Your task to perform on an android device: turn on the 24-hour format for clock Image 0: 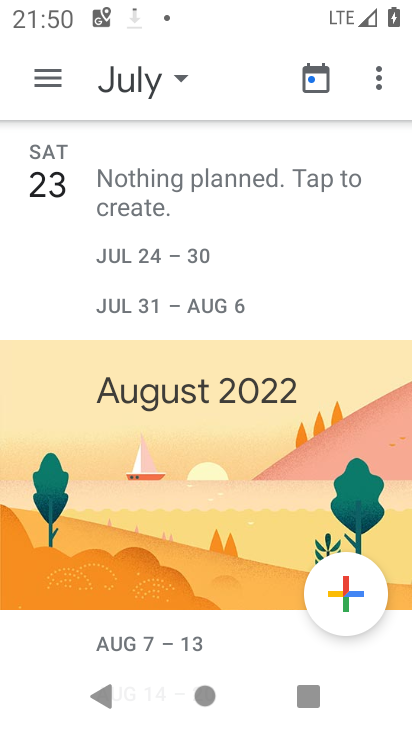
Step 0: press back button
Your task to perform on an android device: turn on the 24-hour format for clock Image 1: 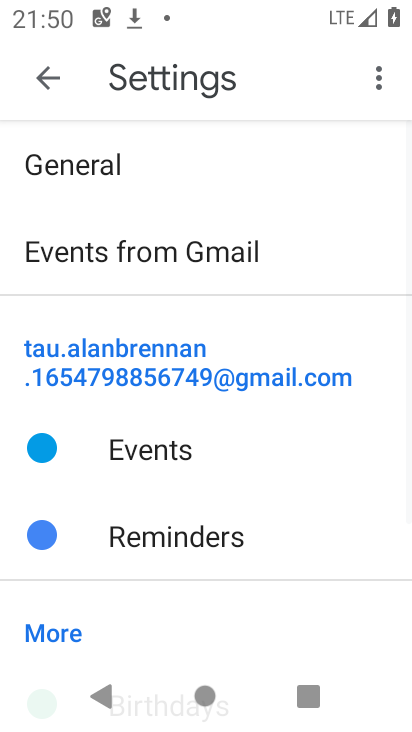
Step 1: press back button
Your task to perform on an android device: turn on the 24-hour format for clock Image 2: 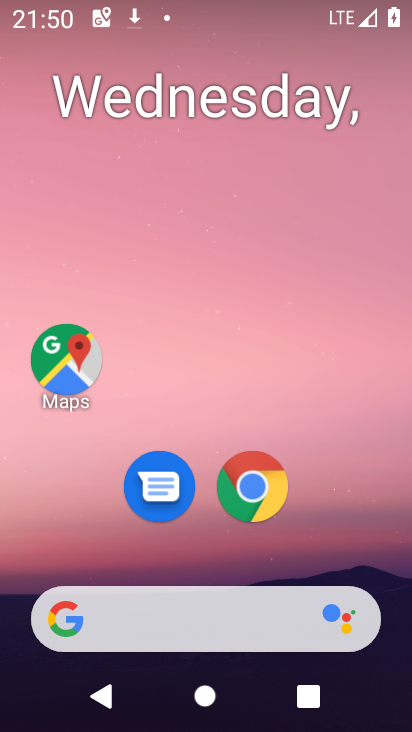
Step 2: drag from (192, 581) to (318, 84)
Your task to perform on an android device: turn on the 24-hour format for clock Image 3: 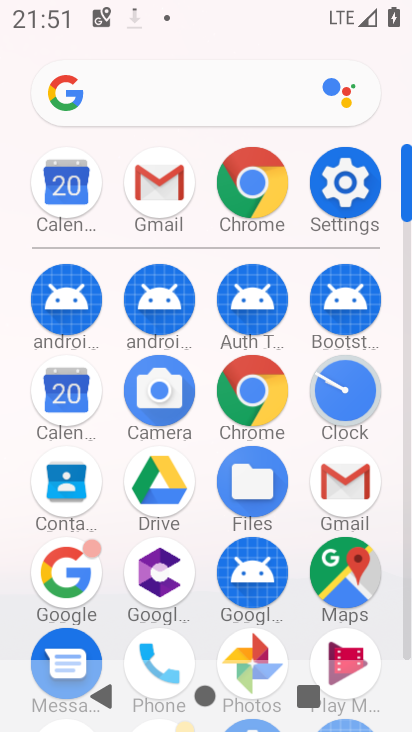
Step 3: click (344, 387)
Your task to perform on an android device: turn on the 24-hour format for clock Image 4: 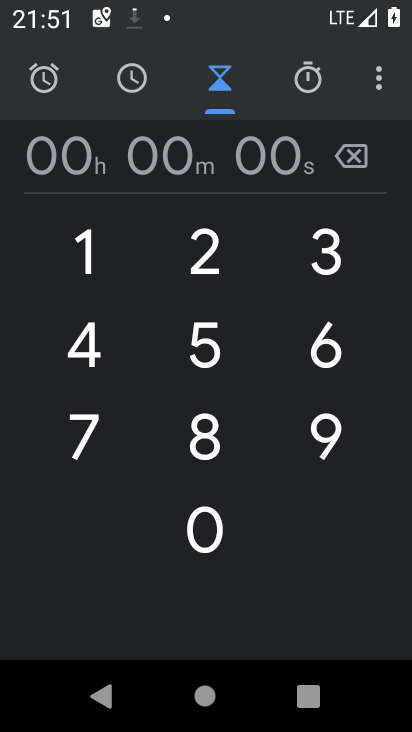
Step 4: click (379, 81)
Your task to perform on an android device: turn on the 24-hour format for clock Image 5: 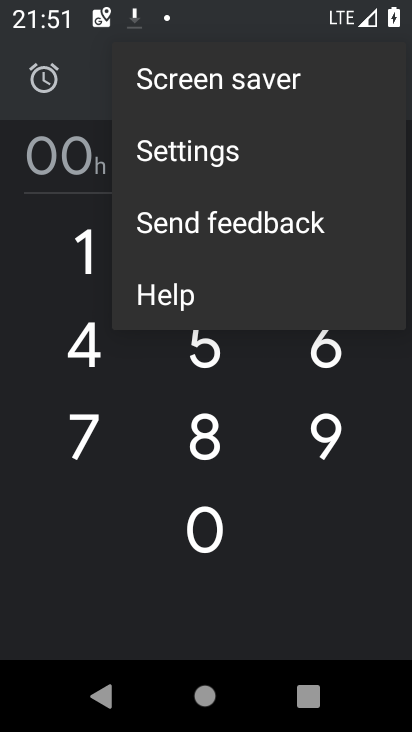
Step 5: click (197, 156)
Your task to perform on an android device: turn on the 24-hour format for clock Image 6: 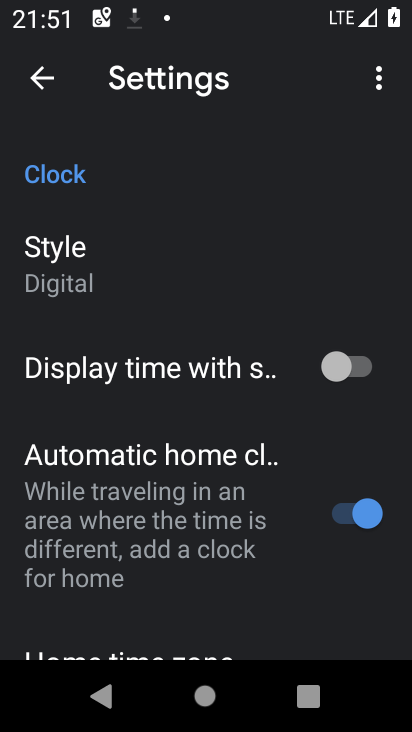
Step 6: drag from (150, 557) to (232, 144)
Your task to perform on an android device: turn on the 24-hour format for clock Image 7: 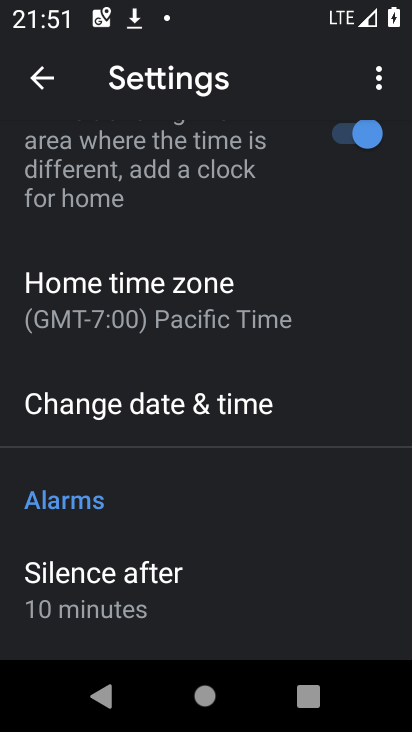
Step 7: click (144, 411)
Your task to perform on an android device: turn on the 24-hour format for clock Image 8: 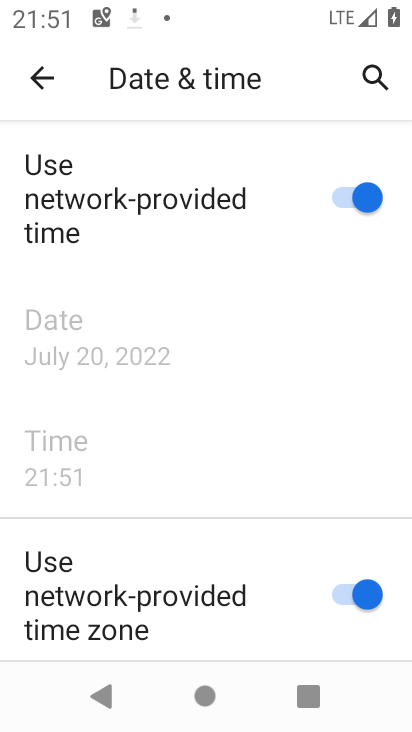
Step 8: task complete